Your task to perform on an android device: add a label to a message in the gmail app Image 0: 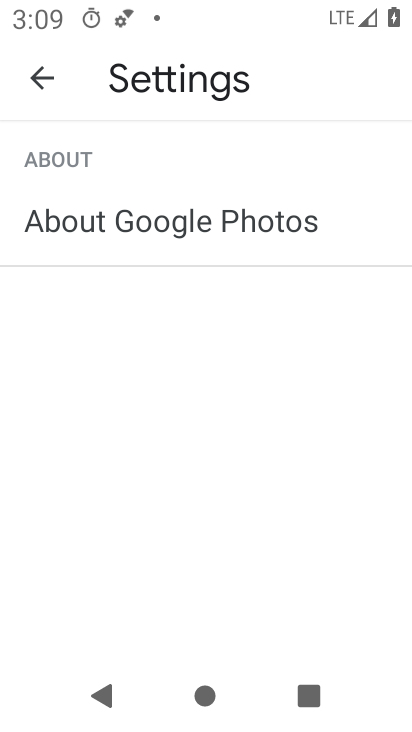
Step 0: press home button
Your task to perform on an android device: add a label to a message in the gmail app Image 1: 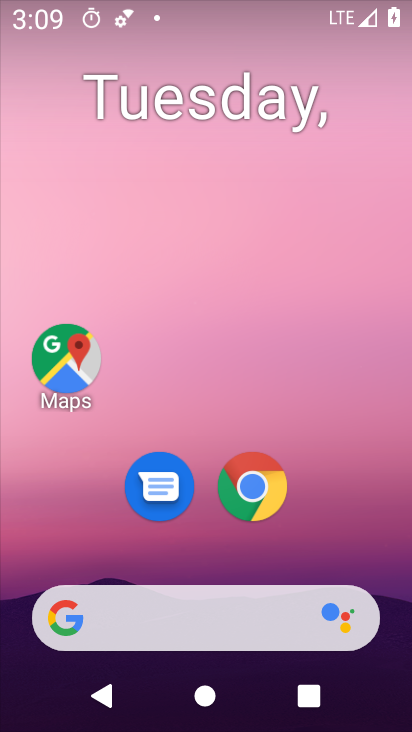
Step 1: drag from (372, 518) to (344, 87)
Your task to perform on an android device: add a label to a message in the gmail app Image 2: 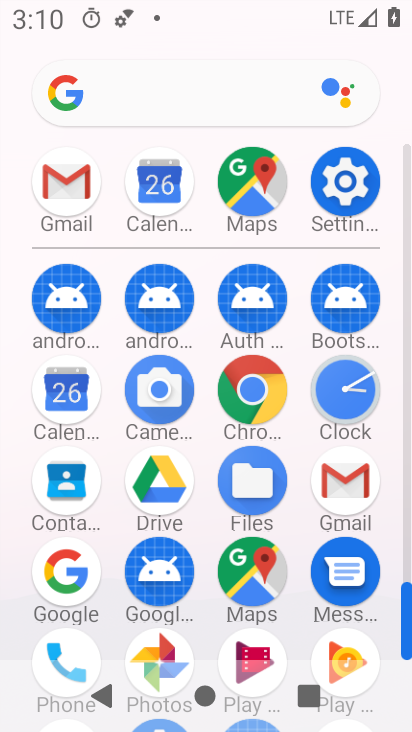
Step 2: click (86, 204)
Your task to perform on an android device: add a label to a message in the gmail app Image 3: 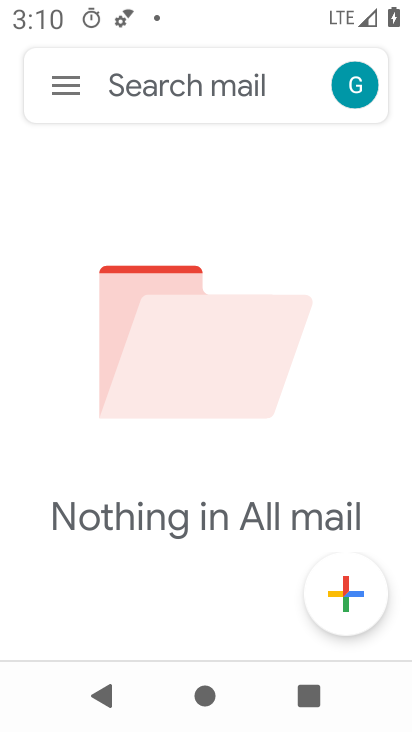
Step 3: task complete